Your task to perform on an android device: check battery use Image 0: 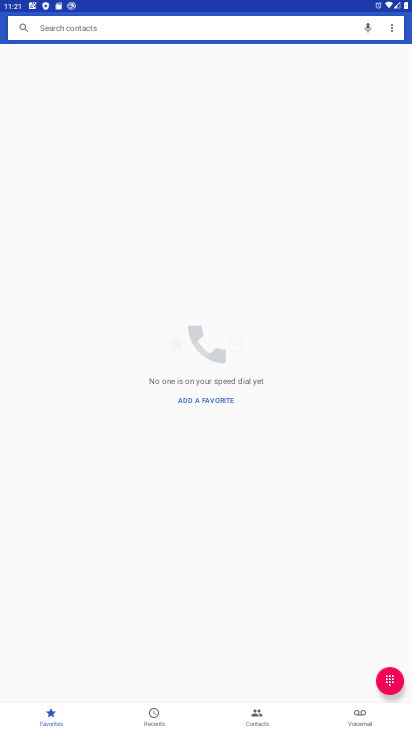
Step 0: press home button
Your task to perform on an android device: check battery use Image 1: 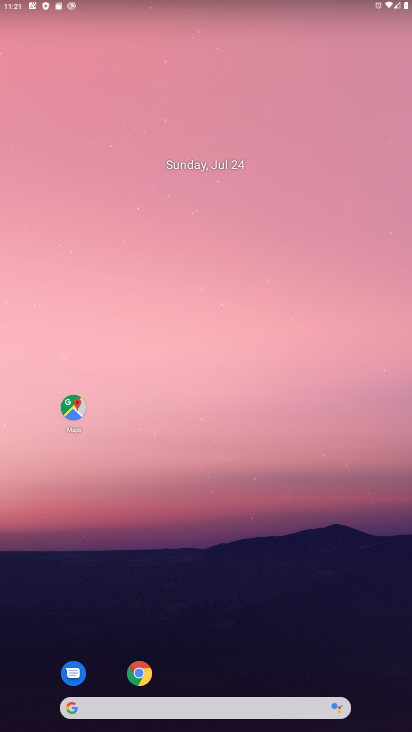
Step 1: drag from (348, 673) to (288, 74)
Your task to perform on an android device: check battery use Image 2: 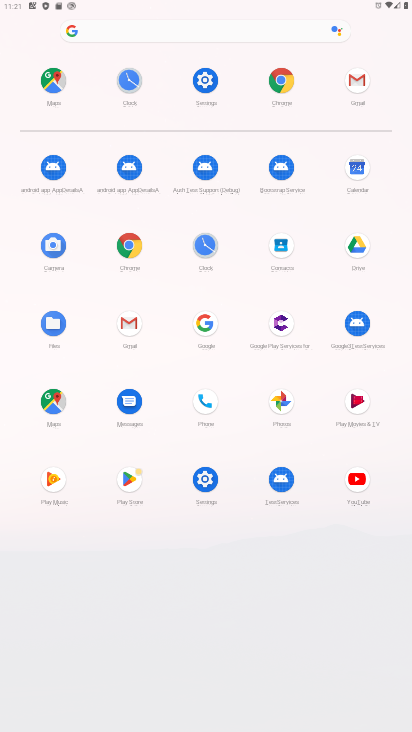
Step 2: click (199, 74)
Your task to perform on an android device: check battery use Image 3: 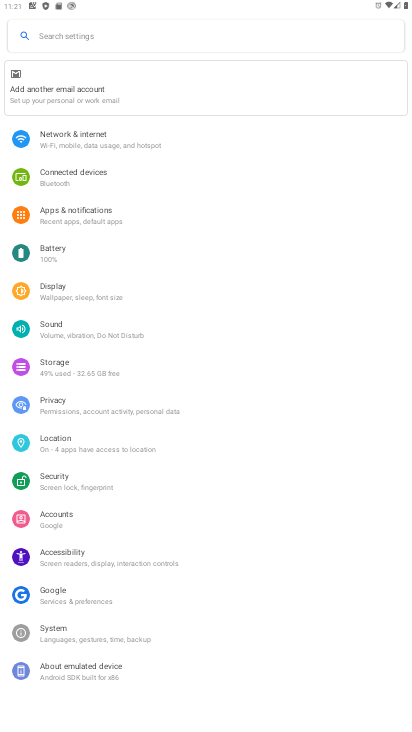
Step 3: click (61, 254)
Your task to perform on an android device: check battery use Image 4: 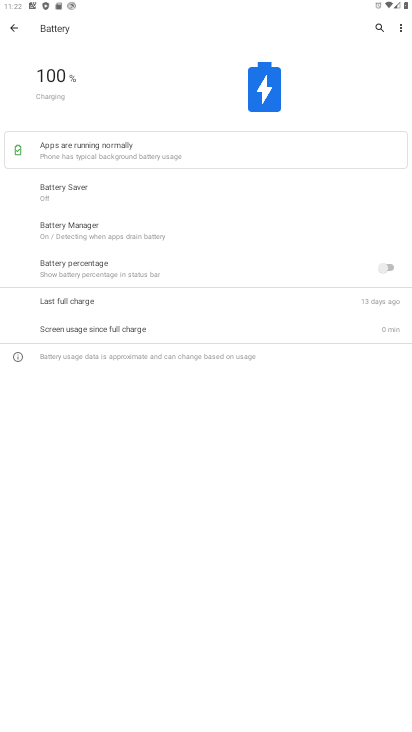
Step 4: click (400, 22)
Your task to perform on an android device: check battery use Image 5: 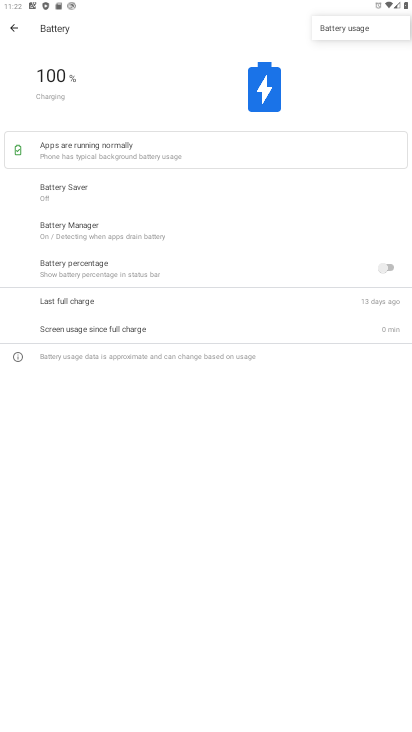
Step 5: click (356, 20)
Your task to perform on an android device: check battery use Image 6: 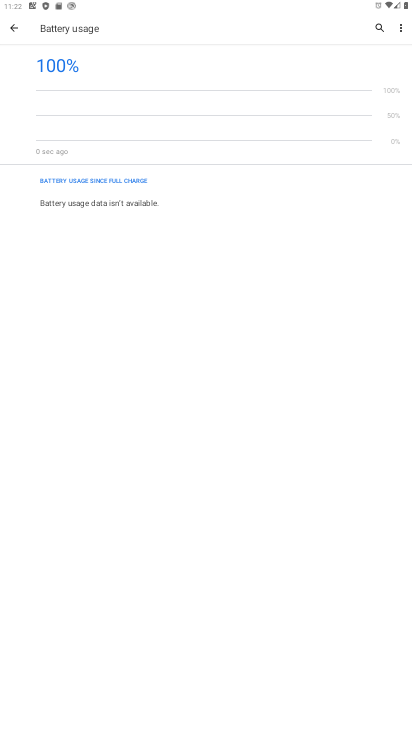
Step 6: task complete